Your task to perform on an android device: Open Chrome and go to the settings page Image 0: 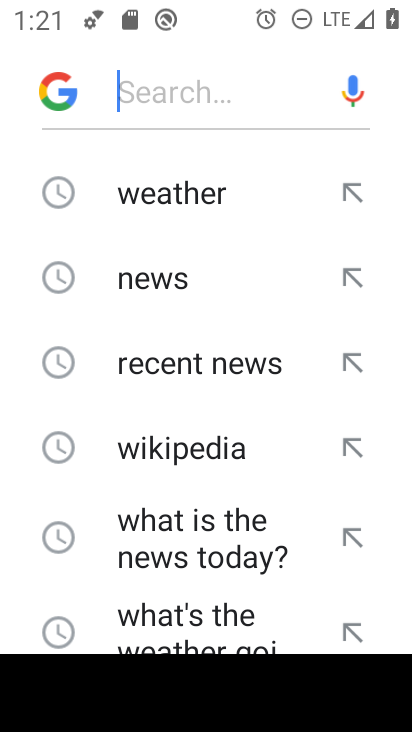
Step 0: press home button
Your task to perform on an android device: Open Chrome and go to the settings page Image 1: 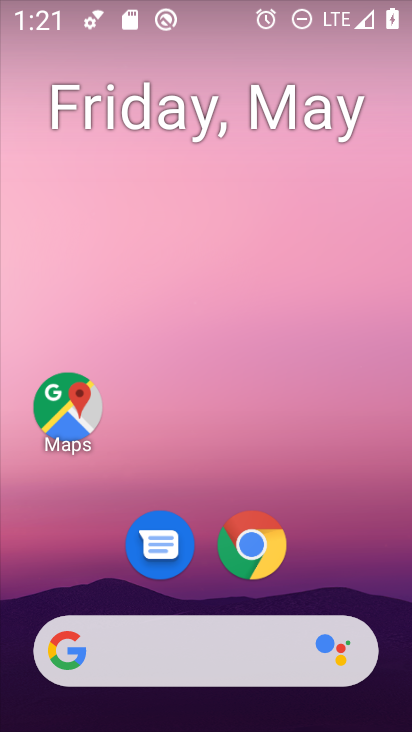
Step 1: drag from (316, 551) to (264, 206)
Your task to perform on an android device: Open Chrome and go to the settings page Image 2: 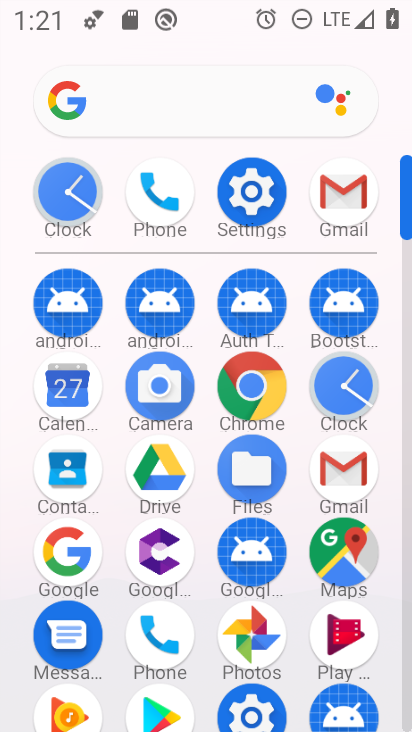
Step 2: click (251, 380)
Your task to perform on an android device: Open Chrome and go to the settings page Image 3: 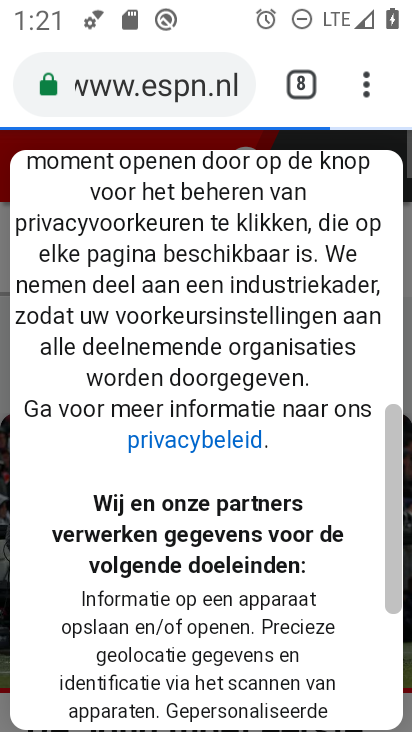
Step 3: click (365, 80)
Your task to perform on an android device: Open Chrome and go to the settings page Image 4: 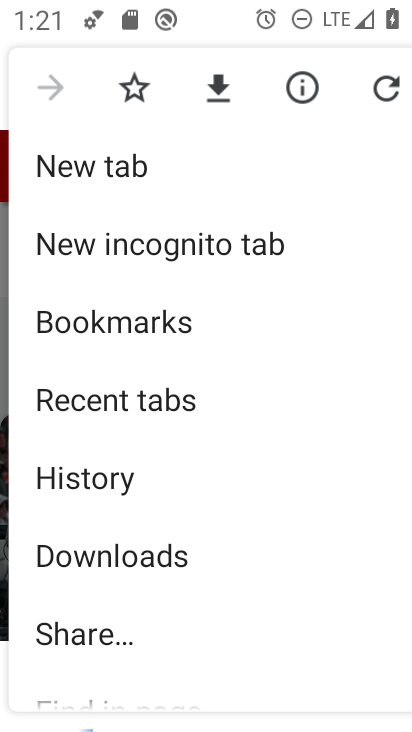
Step 4: drag from (275, 597) to (248, 124)
Your task to perform on an android device: Open Chrome and go to the settings page Image 5: 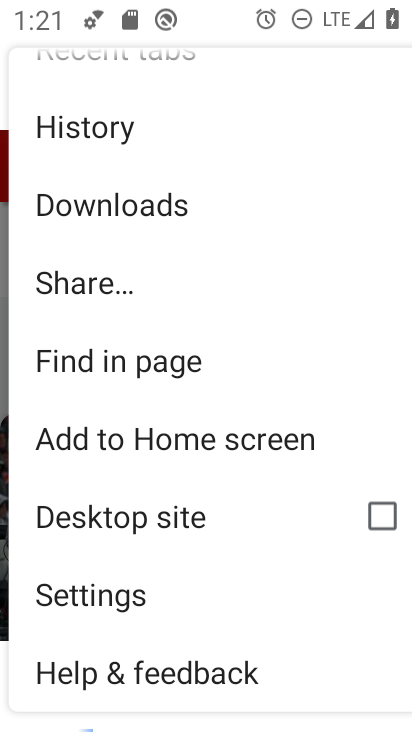
Step 5: drag from (142, 519) to (148, 236)
Your task to perform on an android device: Open Chrome and go to the settings page Image 6: 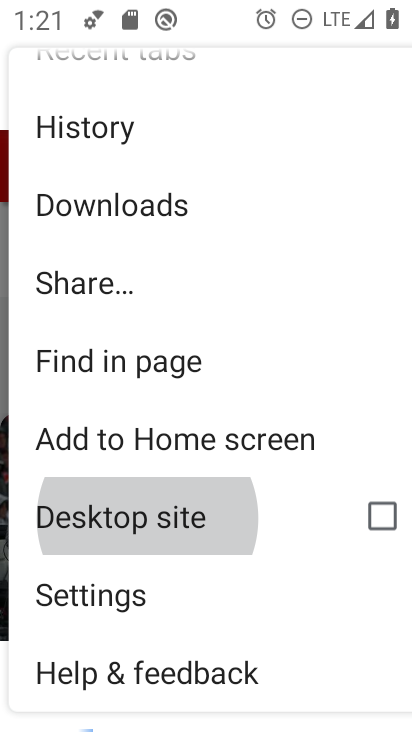
Step 6: drag from (161, 461) to (217, 127)
Your task to perform on an android device: Open Chrome and go to the settings page Image 7: 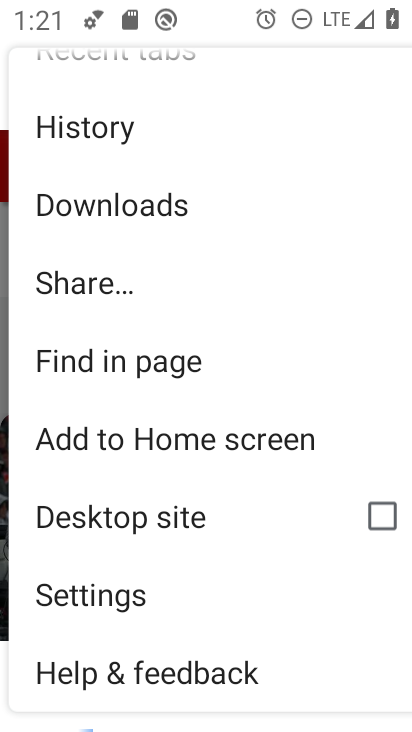
Step 7: click (125, 577)
Your task to perform on an android device: Open Chrome and go to the settings page Image 8: 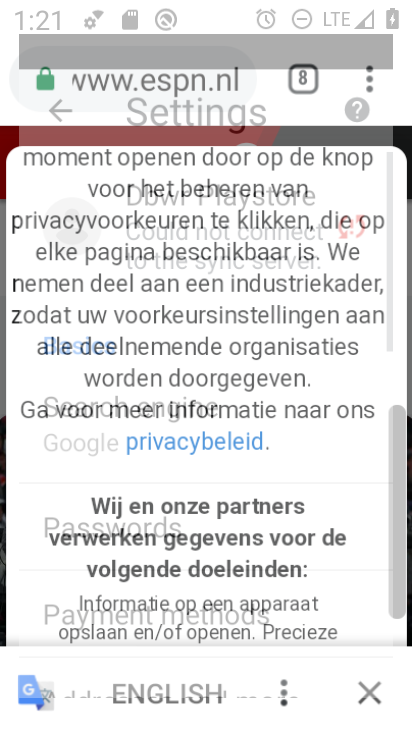
Step 8: click (130, 605)
Your task to perform on an android device: Open Chrome and go to the settings page Image 9: 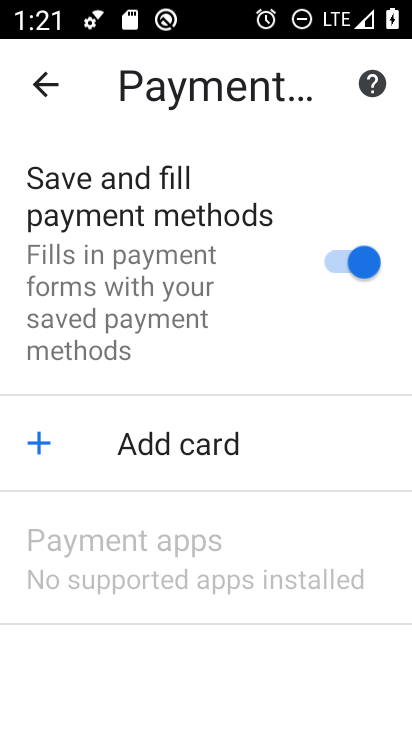
Step 9: click (37, 67)
Your task to perform on an android device: Open Chrome and go to the settings page Image 10: 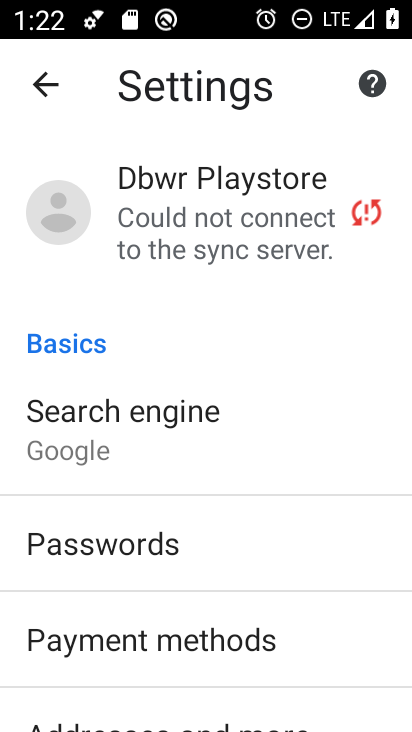
Step 10: task complete